Your task to perform on an android device: Search for pizza restaurants on Maps Image 0: 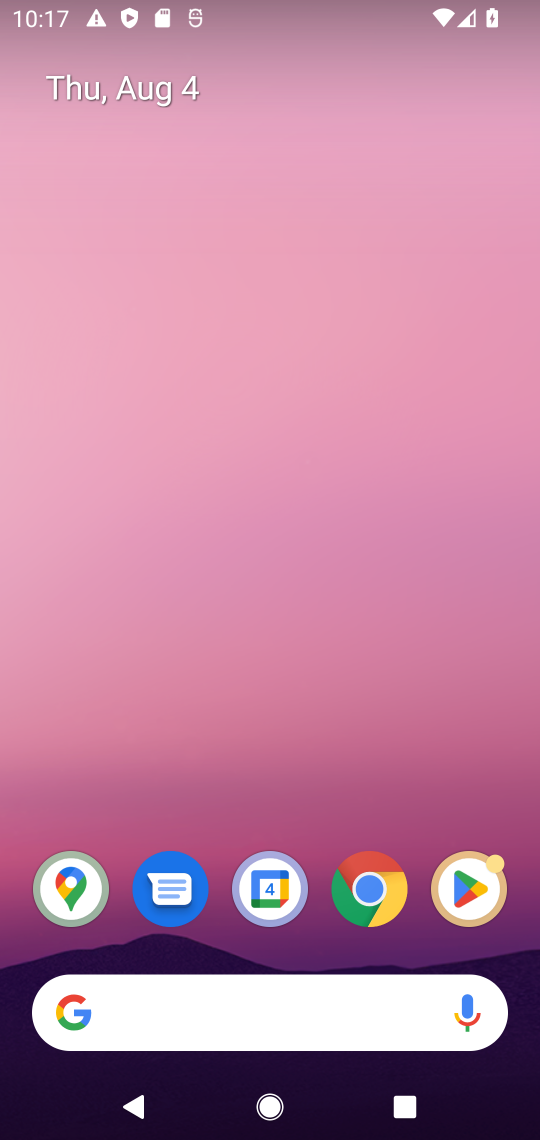
Step 0: press home button
Your task to perform on an android device: Search for pizza restaurants on Maps Image 1: 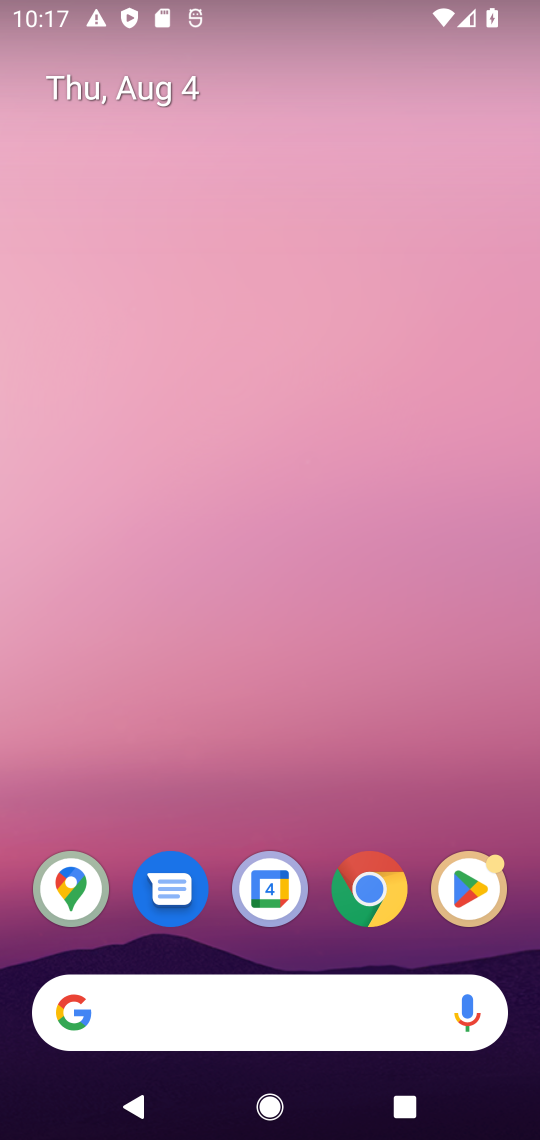
Step 1: drag from (414, 779) to (403, 200)
Your task to perform on an android device: Search for pizza restaurants on Maps Image 2: 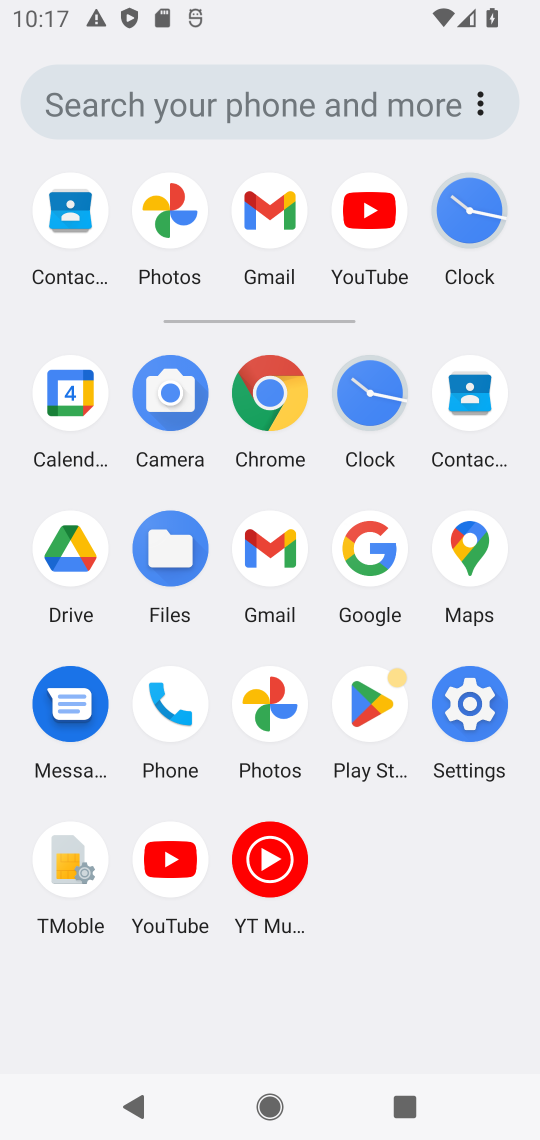
Step 2: click (467, 557)
Your task to perform on an android device: Search for pizza restaurants on Maps Image 3: 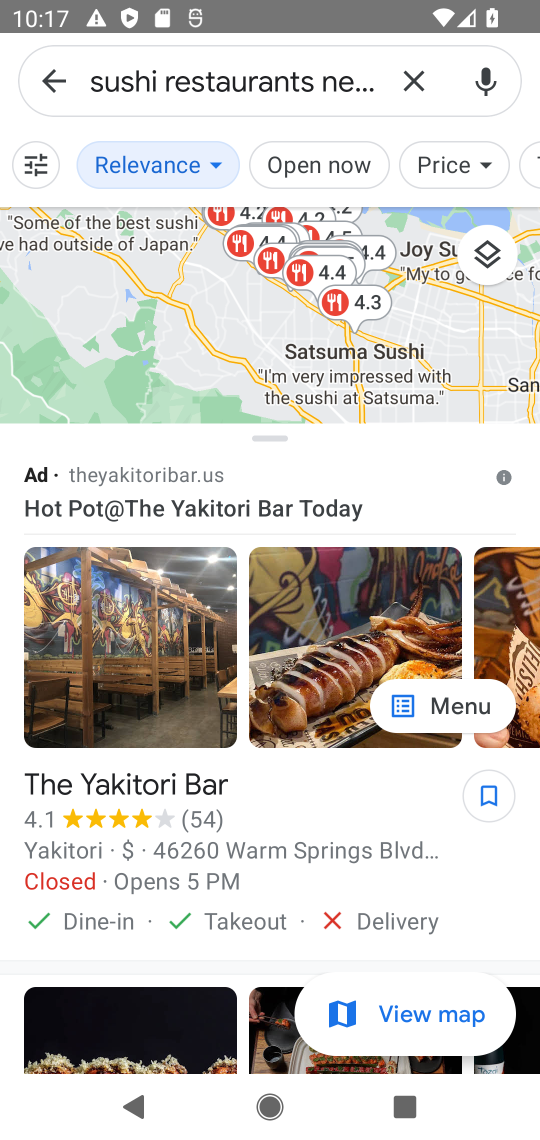
Step 3: click (410, 84)
Your task to perform on an android device: Search for pizza restaurants on Maps Image 4: 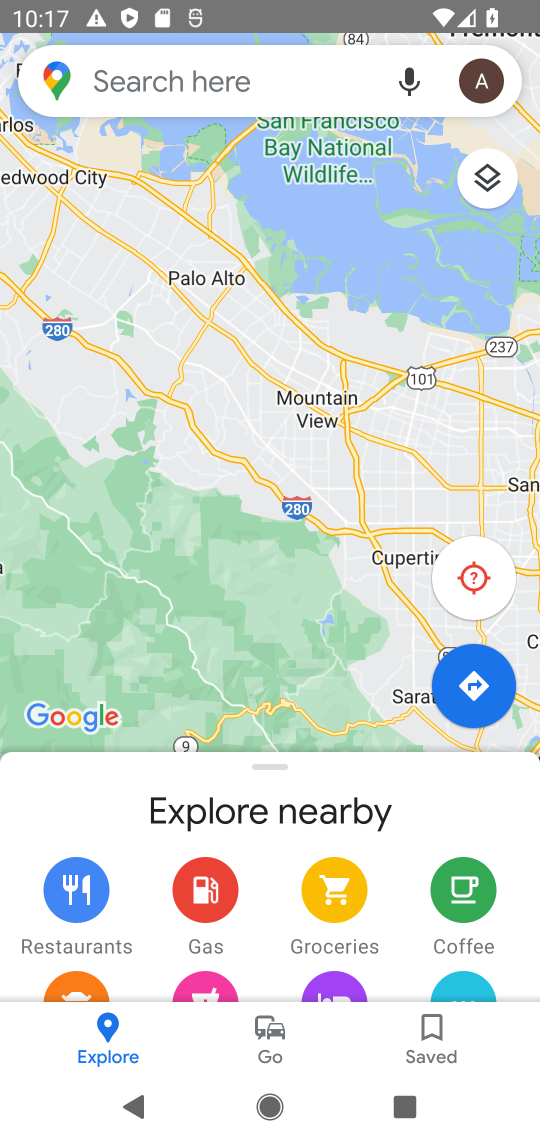
Step 4: click (229, 71)
Your task to perform on an android device: Search for pizza restaurants on Maps Image 5: 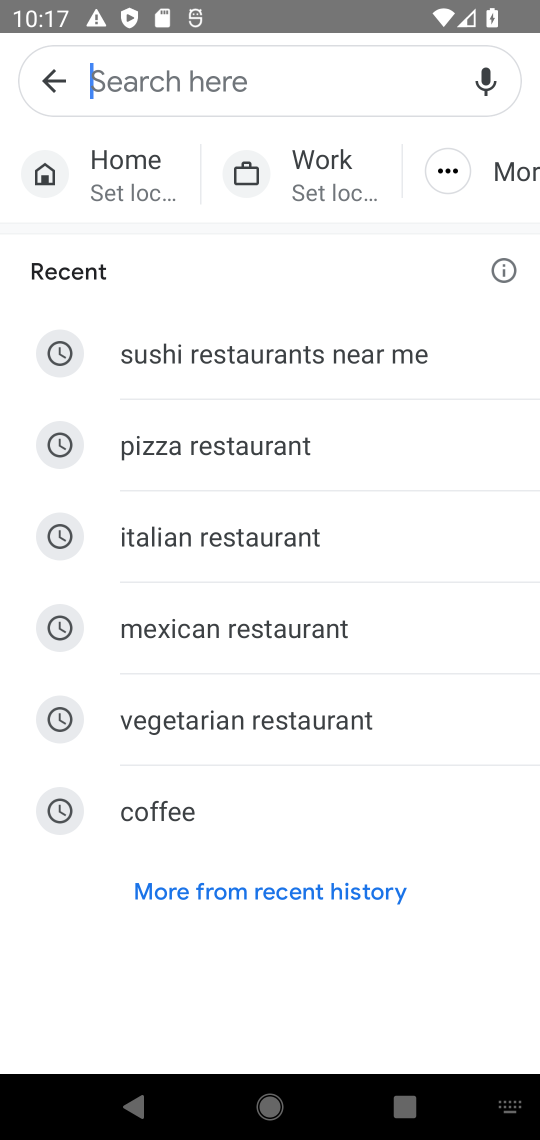
Step 5: type "pizza restaurants"
Your task to perform on an android device: Search for pizza restaurants on Maps Image 6: 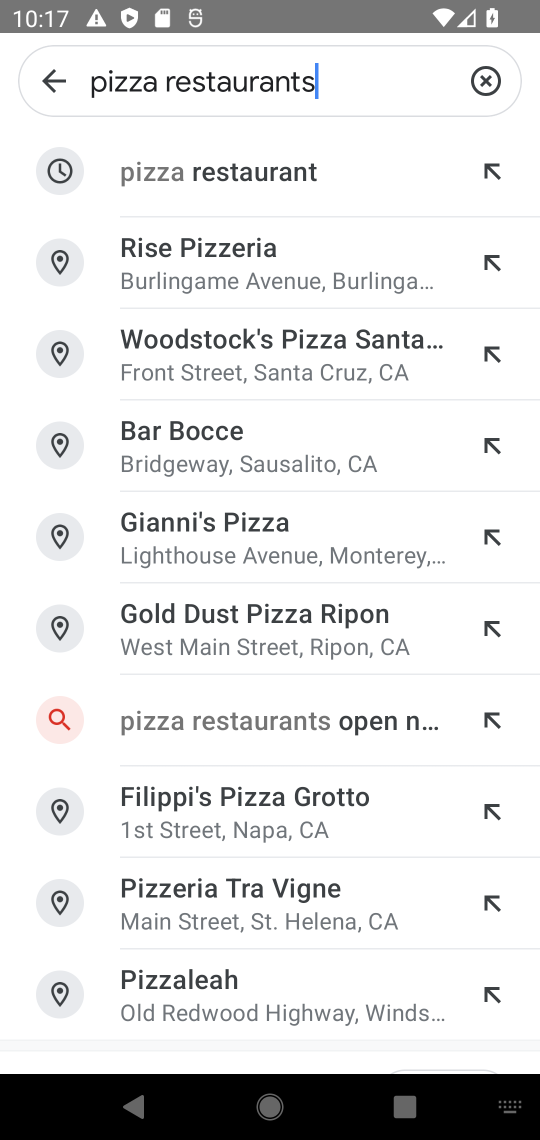
Step 6: click (331, 162)
Your task to perform on an android device: Search for pizza restaurants on Maps Image 7: 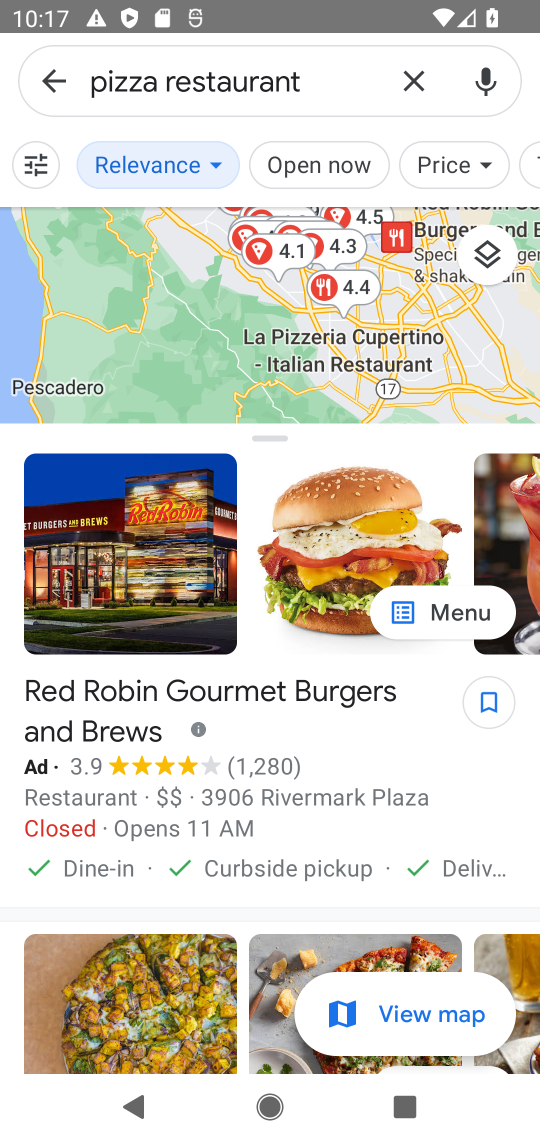
Step 7: task complete